Your task to perform on an android device: set default search engine in the chrome app Image 0: 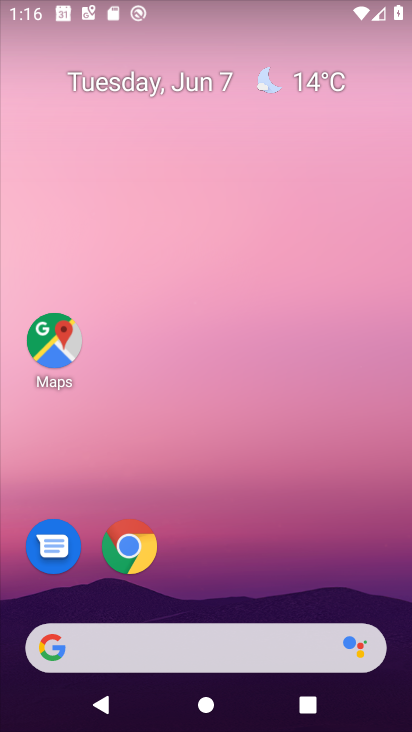
Step 0: click (143, 550)
Your task to perform on an android device: set default search engine in the chrome app Image 1: 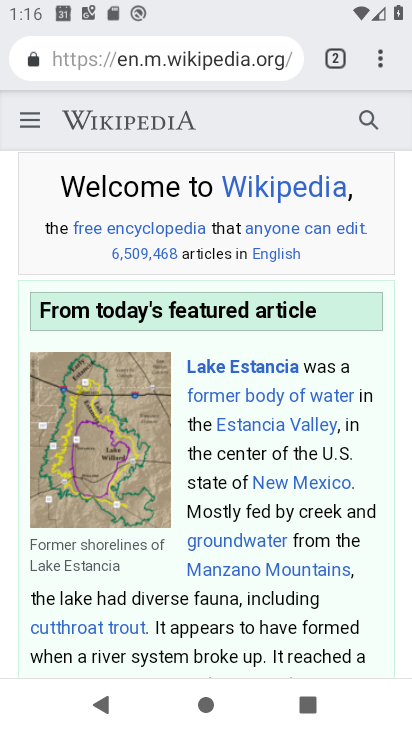
Step 1: click (383, 52)
Your task to perform on an android device: set default search engine in the chrome app Image 2: 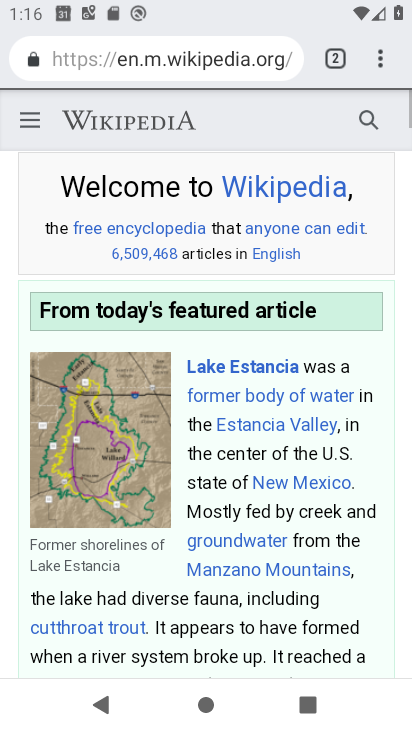
Step 2: drag from (383, 51) to (197, 570)
Your task to perform on an android device: set default search engine in the chrome app Image 3: 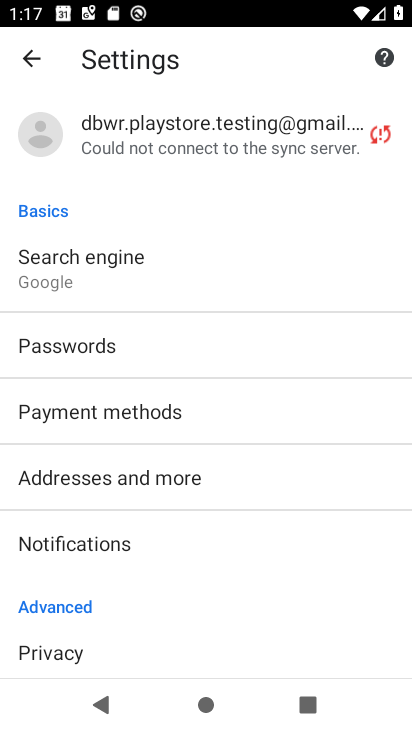
Step 3: click (96, 263)
Your task to perform on an android device: set default search engine in the chrome app Image 4: 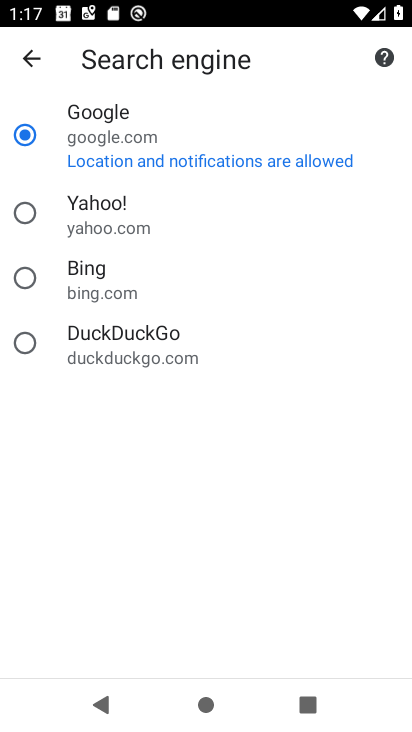
Step 4: click (33, 56)
Your task to perform on an android device: set default search engine in the chrome app Image 5: 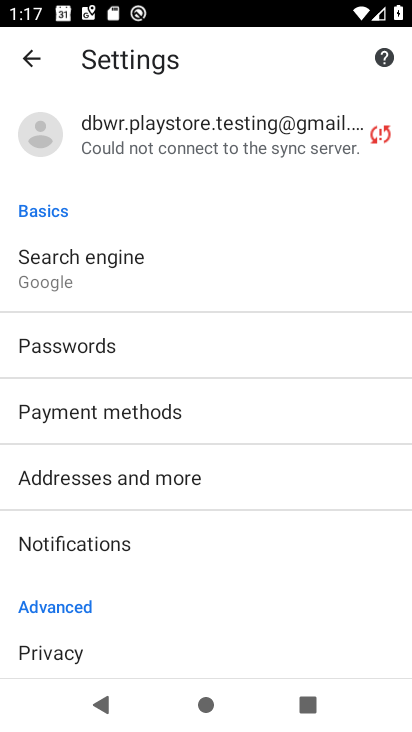
Step 5: task complete